Your task to perform on an android device: turn off notifications settings in the gmail app Image 0: 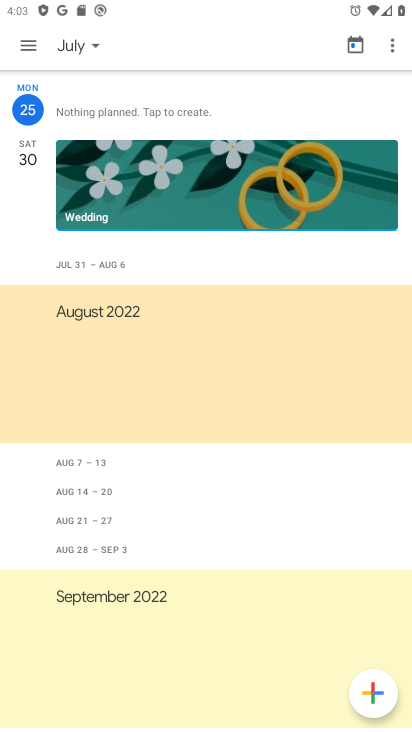
Step 0: press home button
Your task to perform on an android device: turn off notifications settings in the gmail app Image 1: 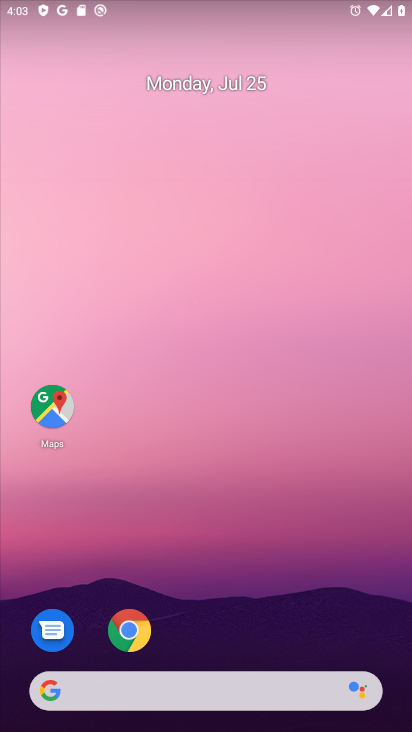
Step 1: drag from (206, 695) to (221, 126)
Your task to perform on an android device: turn off notifications settings in the gmail app Image 2: 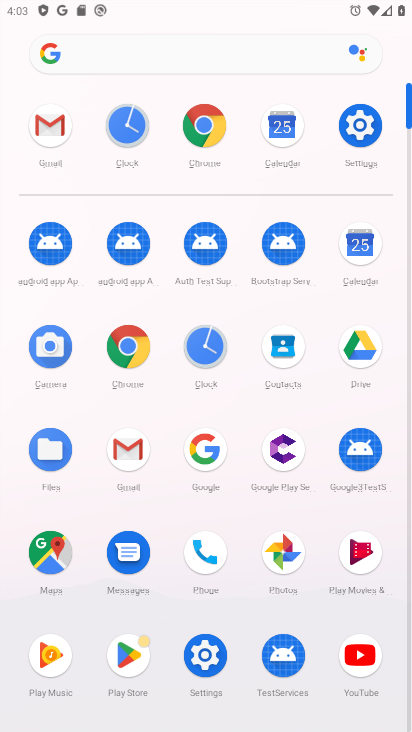
Step 2: click (51, 125)
Your task to perform on an android device: turn off notifications settings in the gmail app Image 3: 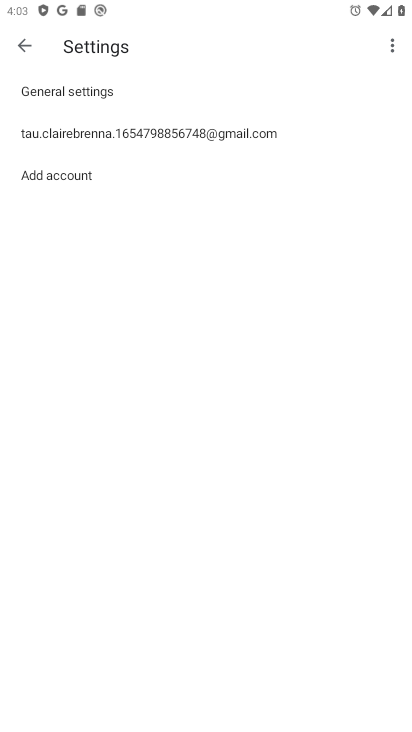
Step 3: click (92, 132)
Your task to perform on an android device: turn off notifications settings in the gmail app Image 4: 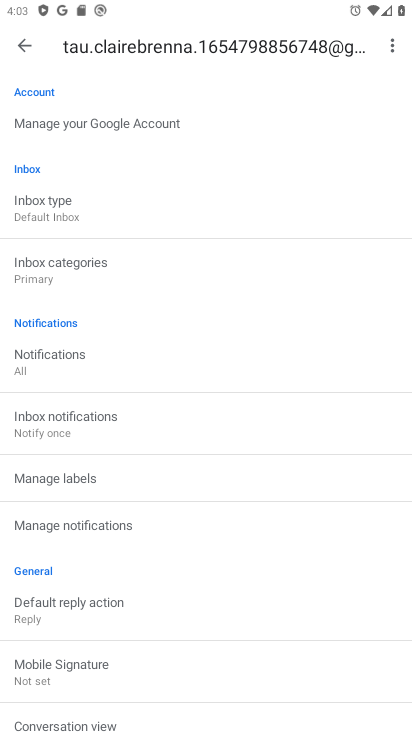
Step 4: click (47, 527)
Your task to perform on an android device: turn off notifications settings in the gmail app Image 5: 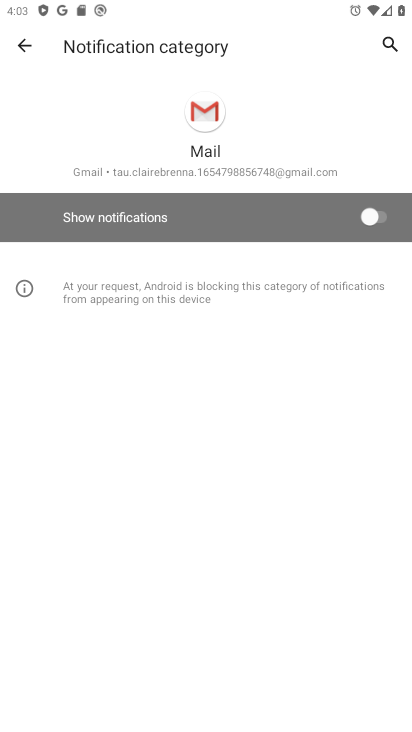
Step 5: task complete